Your task to perform on an android device: What's on my calendar today? Image 0: 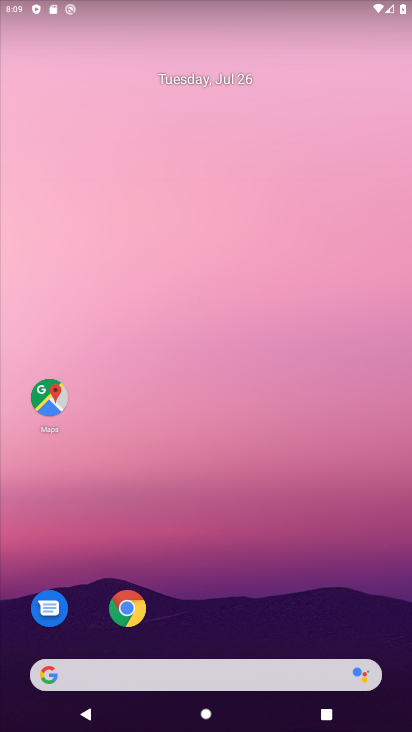
Step 0: drag from (312, 665) to (321, 50)
Your task to perform on an android device: What's on my calendar today? Image 1: 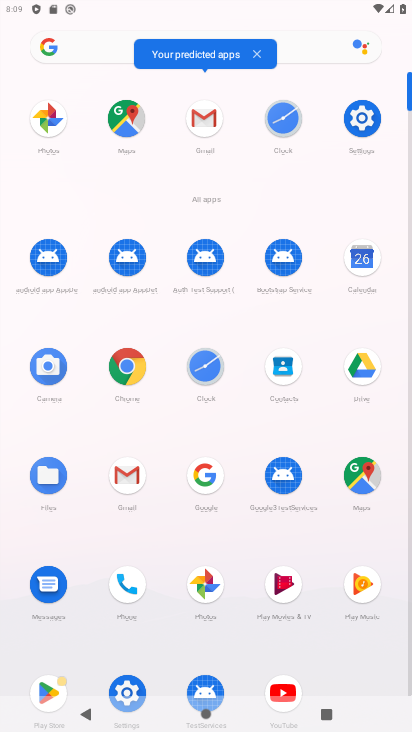
Step 1: click (359, 269)
Your task to perform on an android device: What's on my calendar today? Image 2: 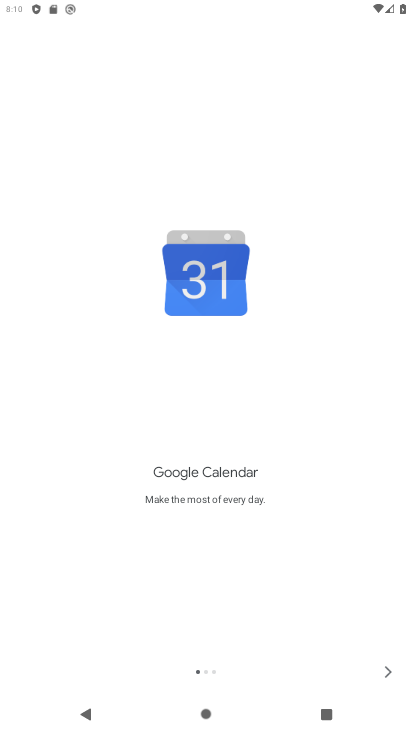
Step 2: click (392, 669)
Your task to perform on an android device: What's on my calendar today? Image 3: 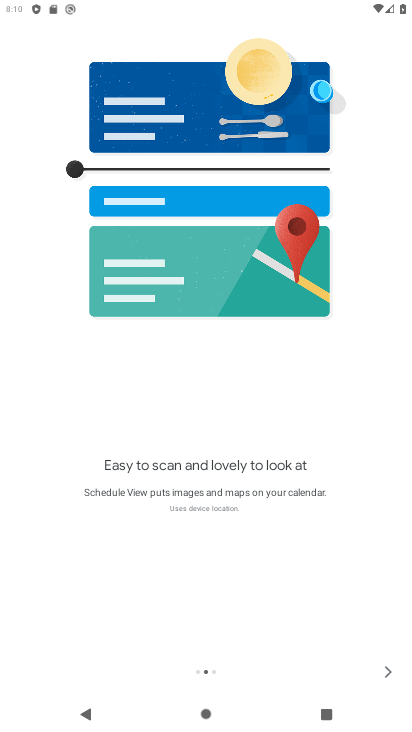
Step 3: click (379, 671)
Your task to perform on an android device: What's on my calendar today? Image 4: 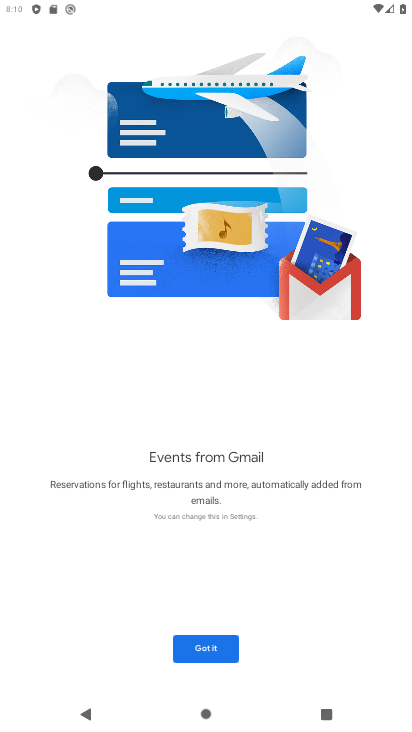
Step 4: click (207, 651)
Your task to perform on an android device: What's on my calendar today? Image 5: 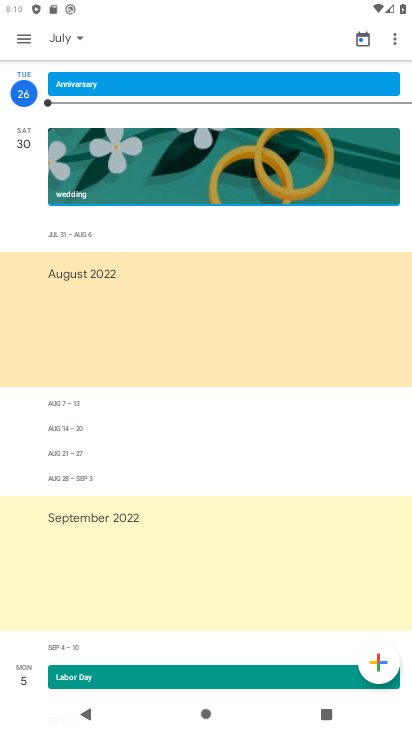
Step 5: click (72, 37)
Your task to perform on an android device: What's on my calendar today? Image 6: 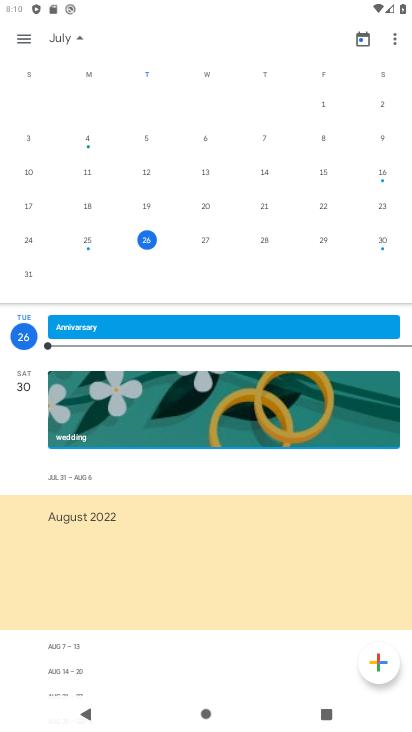
Step 6: click (145, 233)
Your task to perform on an android device: What's on my calendar today? Image 7: 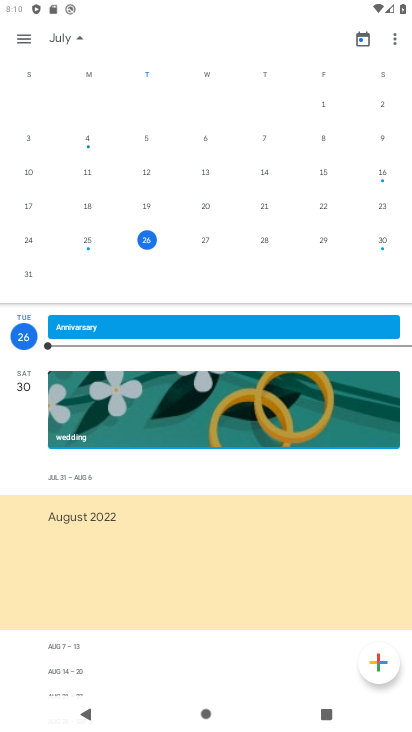
Step 7: task complete